Your task to perform on an android device: Open eBay Image 0: 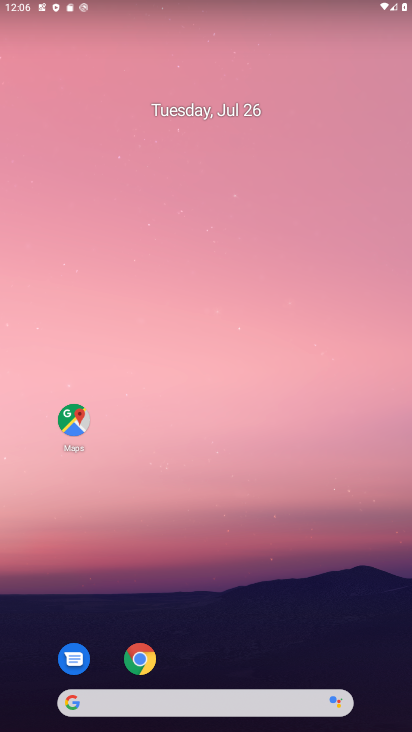
Step 0: drag from (241, 591) to (259, 445)
Your task to perform on an android device: Open eBay Image 1: 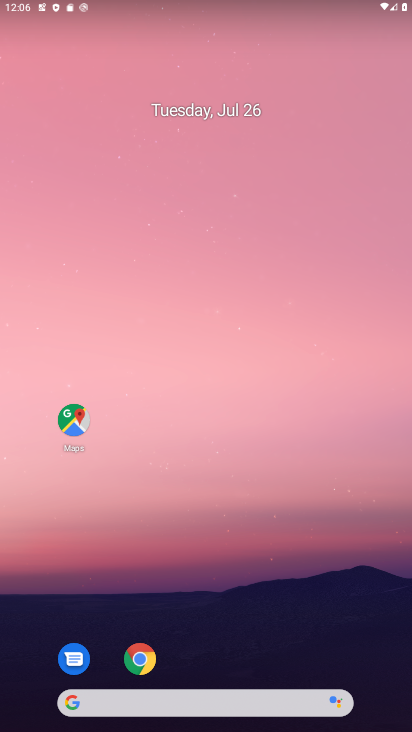
Step 1: drag from (226, 672) to (219, 328)
Your task to perform on an android device: Open eBay Image 2: 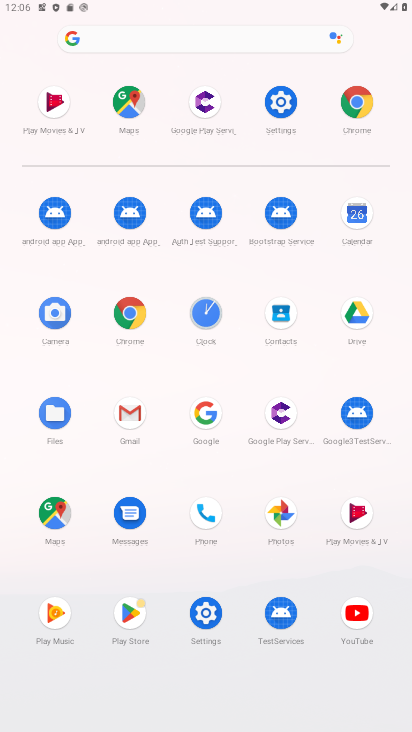
Step 2: click (129, 32)
Your task to perform on an android device: Open eBay Image 3: 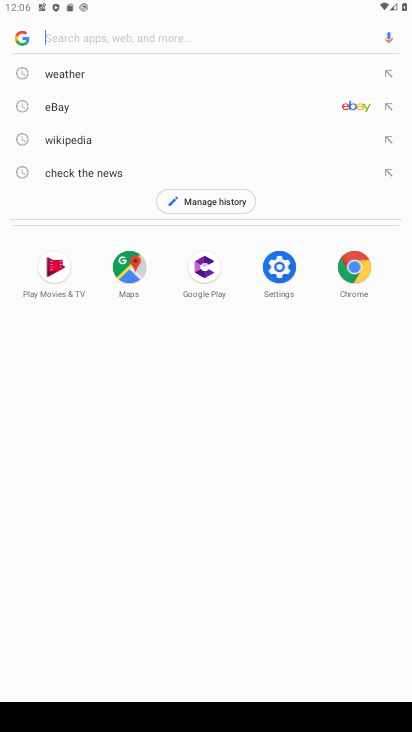
Step 3: type "eBay"
Your task to perform on an android device: Open eBay Image 4: 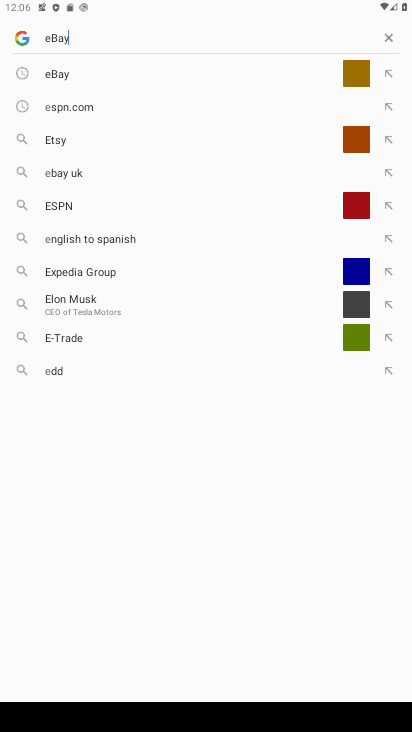
Step 4: type ""
Your task to perform on an android device: Open eBay Image 5: 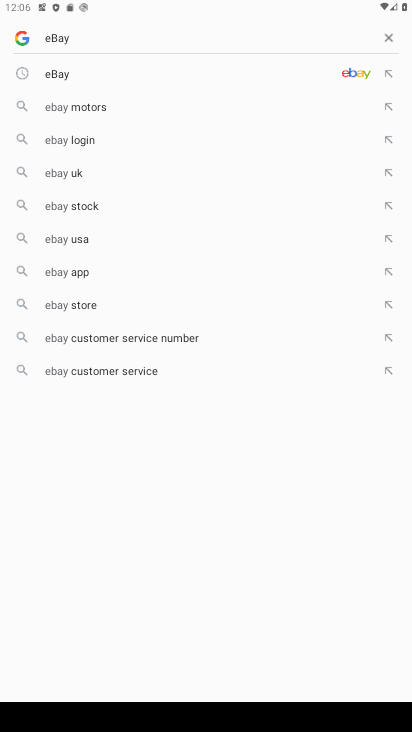
Step 5: click (125, 67)
Your task to perform on an android device: Open eBay Image 6: 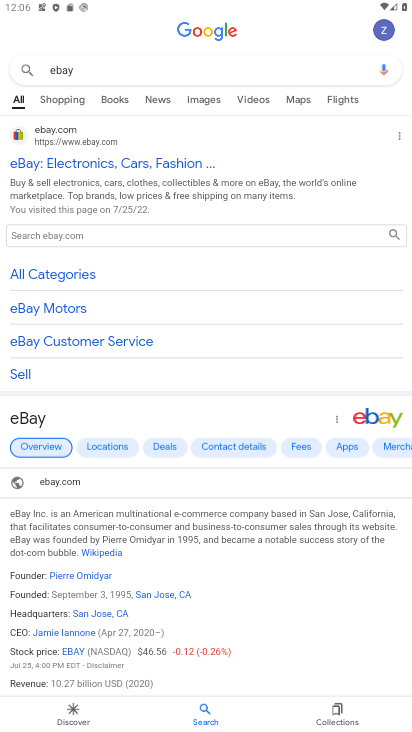
Step 6: click (93, 159)
Your task to perform on an android device: Open eBay Image 7: 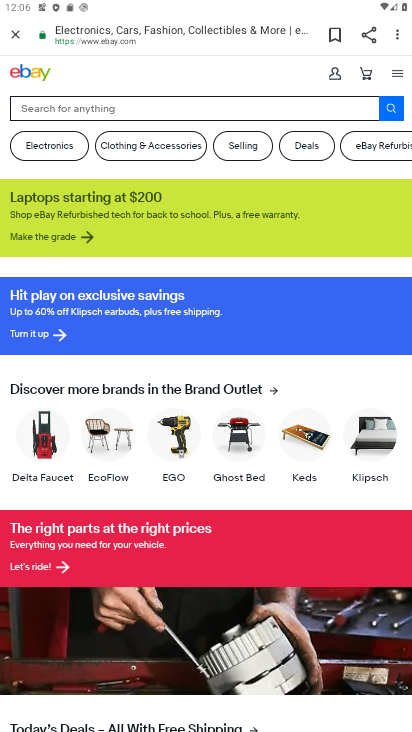
Step 7: task complete